Your task to perform on an android device: toggle notification dots Image 0: 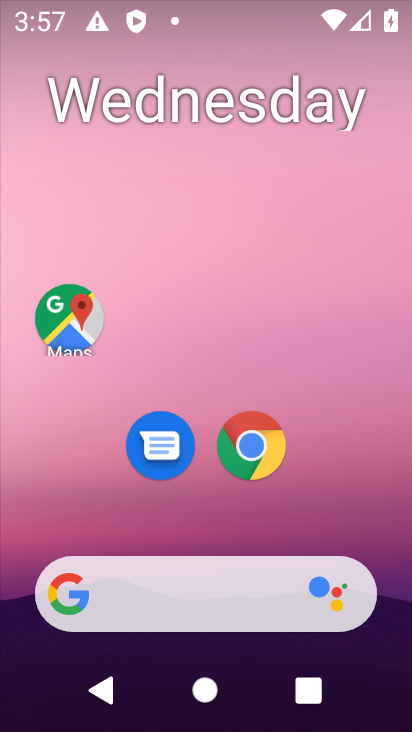
Step 0: drag from (327, 502) to (28, 196)
Your task to perform on an android device: toggle notification dots Image 1: 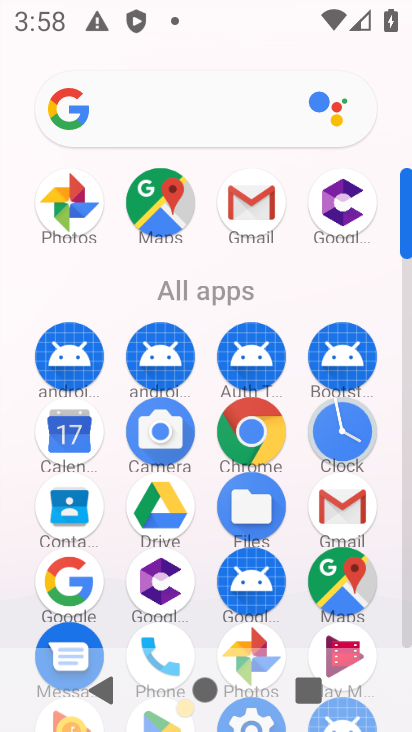
Step 1: drag from (296, 551) to (277, 27)
Your task to perform on an android device: toggle notification dots Image 2: 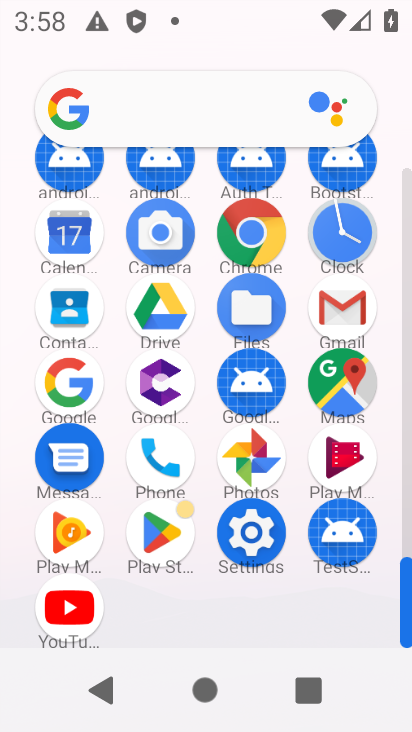
Step 2: click (241, 530)
Your task to perform on an android device: toggle notification dots Image 3: 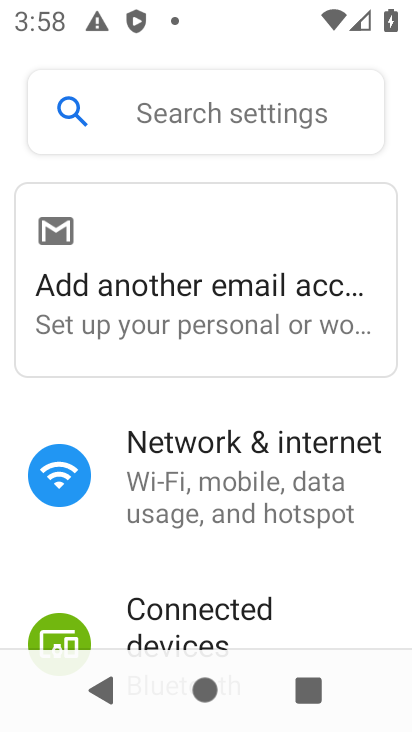
Step 3: drag from (234, 542) to (268, 21)
Your task to perform on an android device: toggle notification dots Image 4: 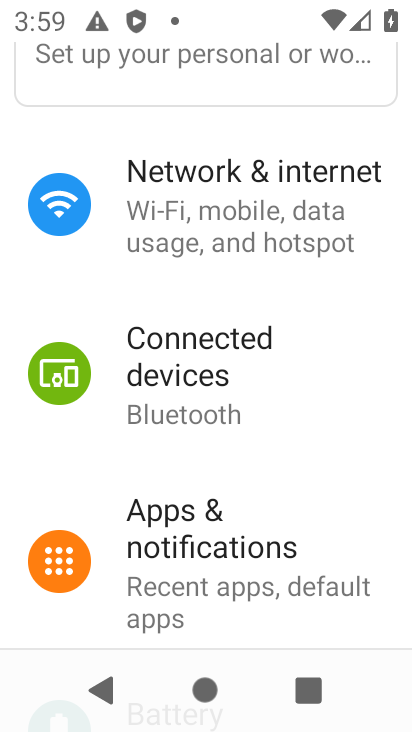
Step 4: click (230, 578)
Your task to perform on an android device: toggle notification dots Image 5: 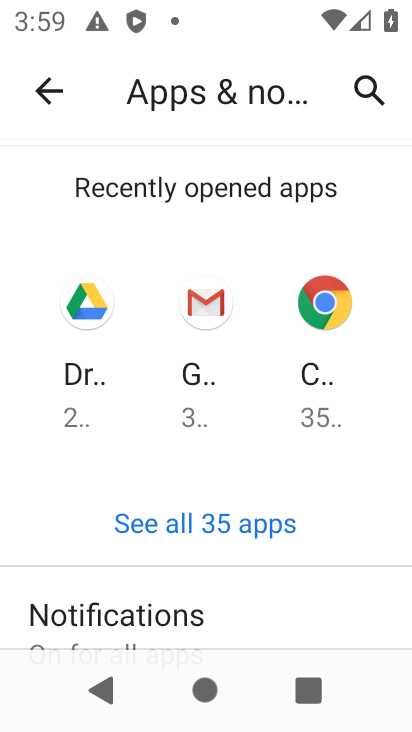
Step 5: drag from (245, 561) to (283, 11)
Your task to perform on an android device: toggle notification dots Image 6: 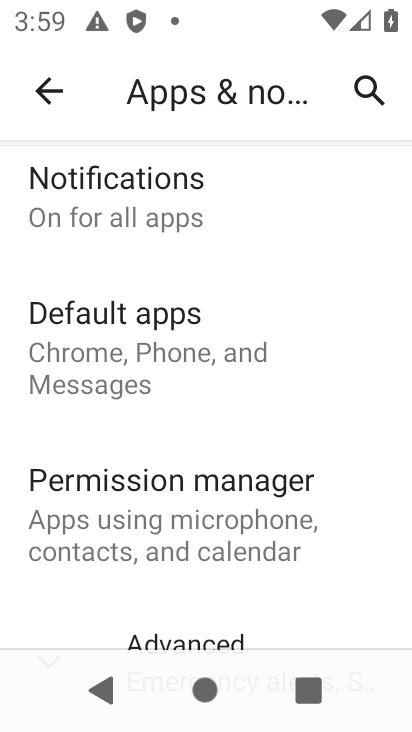
Step 6: click (178, 208)
Your task to perform on an android device: toggle notification dots Image 7: 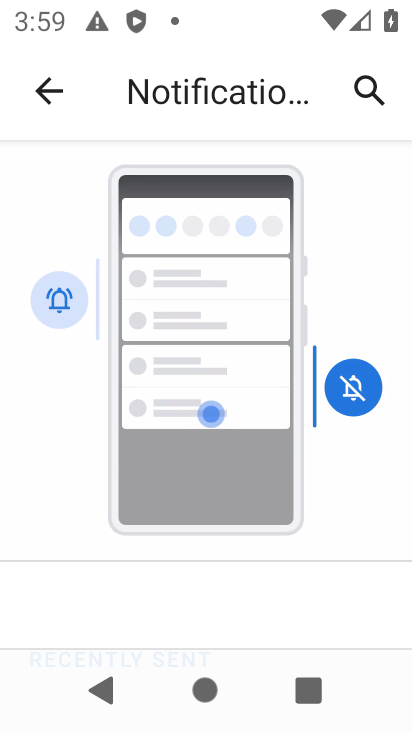
Step 7: drag from (218, 562) to (339, 4)
Your task to perform on an android device: toggle notification dots Image 8: 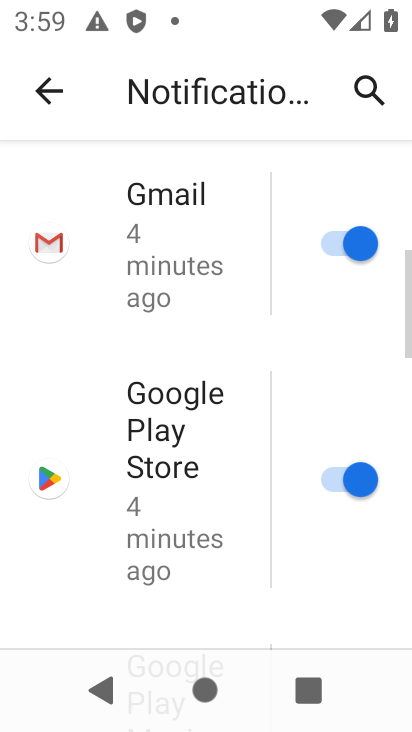
Step 8: drag from (174, 478) to (277, 40)
Your task to perform on an android device: toggle notification dots Image 9: 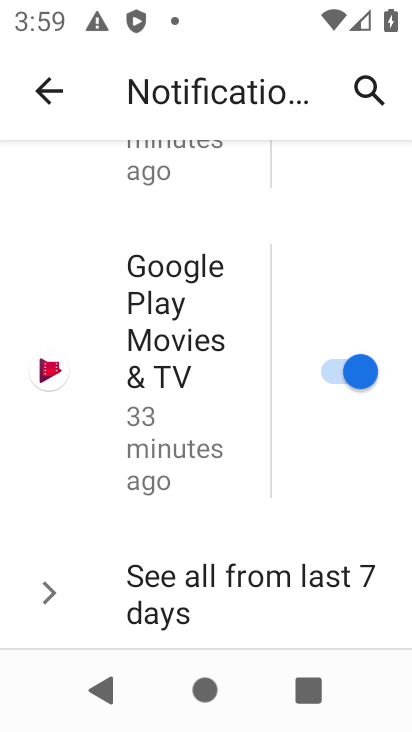
Step 9: drag from (233, 509) to (300, 45)
Your task to perform on an android device: toggle notification dots Image 10: 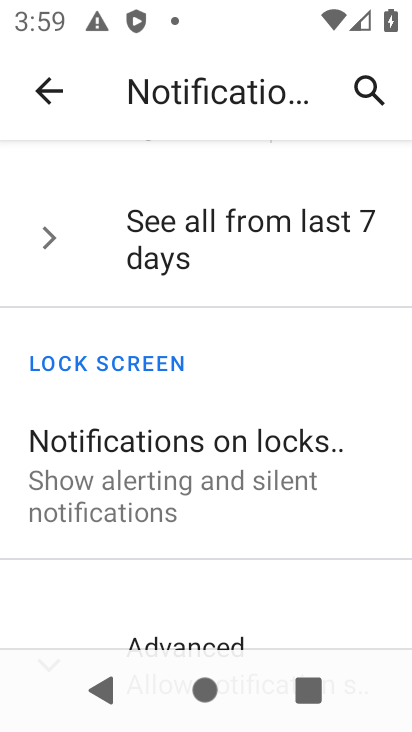
Step 10: drag from (234, 484) to (322, 74)
Your task to perform on an android device: toggle notification dots Image 11: 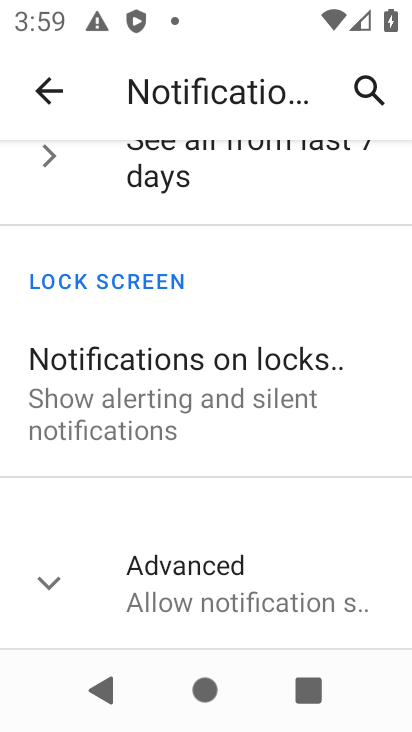
Step 11: click (200, 569)
Your task to perform on an android device: toggle notification dots Image 12: 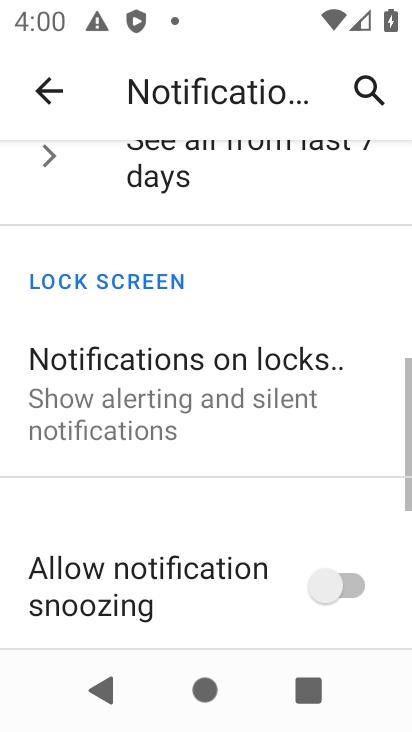
Step 12: drag from (222, 546) to (340, 78)
Your task to perform on an android device: toggle notification dots Image 13: 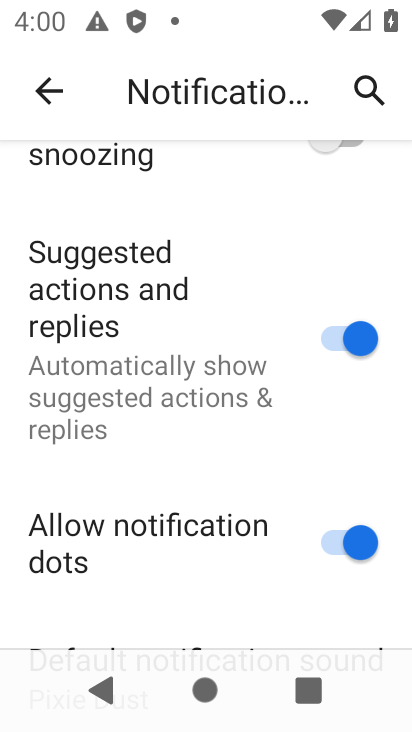
Step 13: click (361, 545)
Your task to perform on an android device: toggle notification dots Image 14: 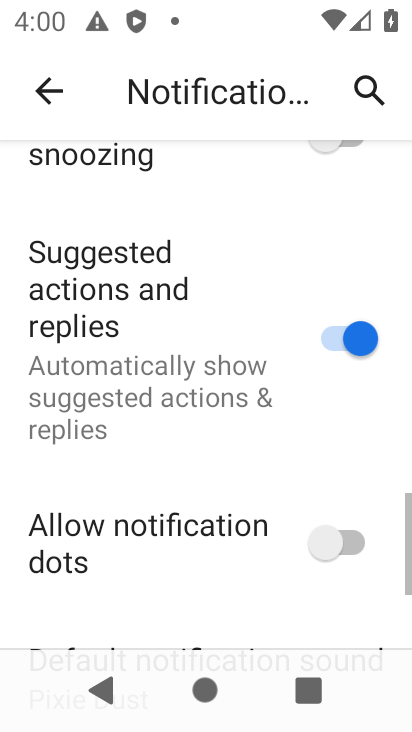
Step 14: task complete